Your task to perform on an android device: change notifications settings Image 0: 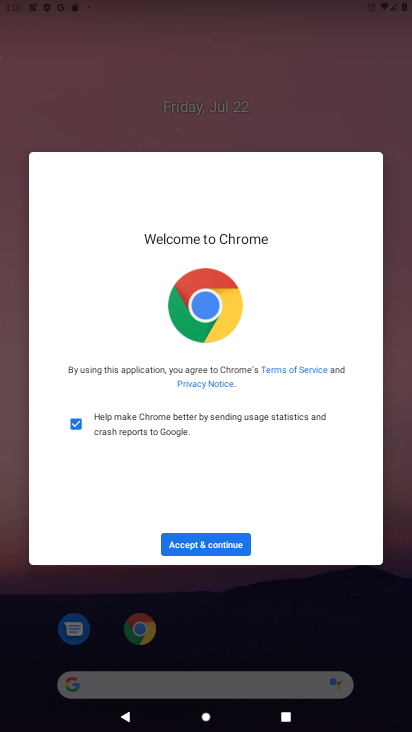
Step 0: press home button
Your task to perform on an android device: change notifications settings Image 1: 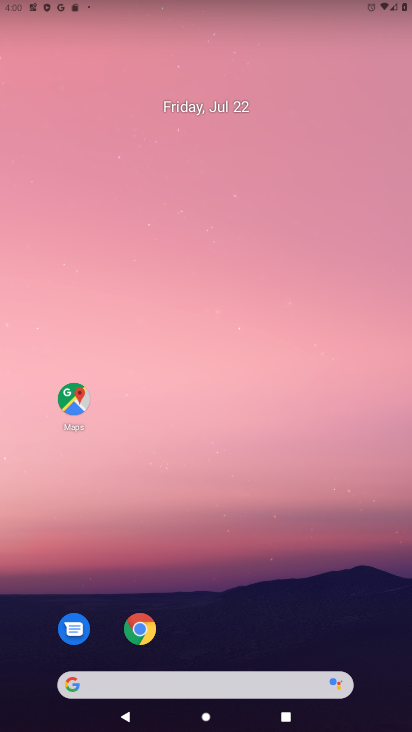
Step 1: drag from (205, 558) to (247, 175)
Your task to perform on an android device: change notifications settings Image 2: 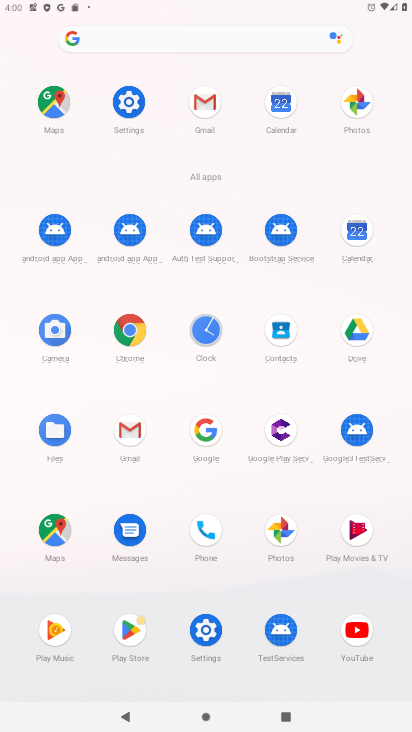
Step 2: click (139, 119)
Your task to perform on an android device: change notifications settings Image 3: 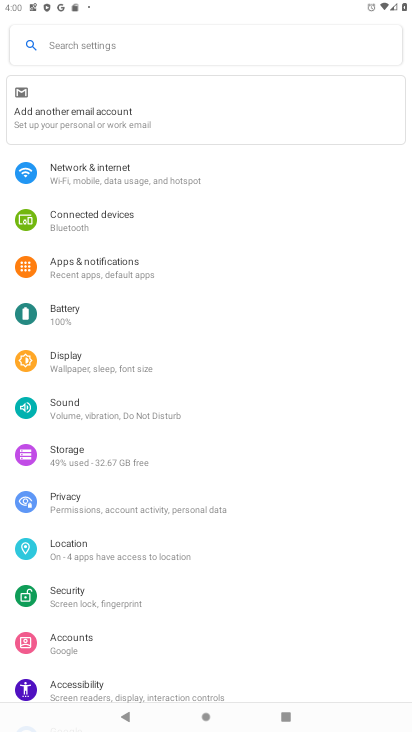
Step 3: click (93, 274)
Your task to perform on an android device: change notifications settings Image 4: 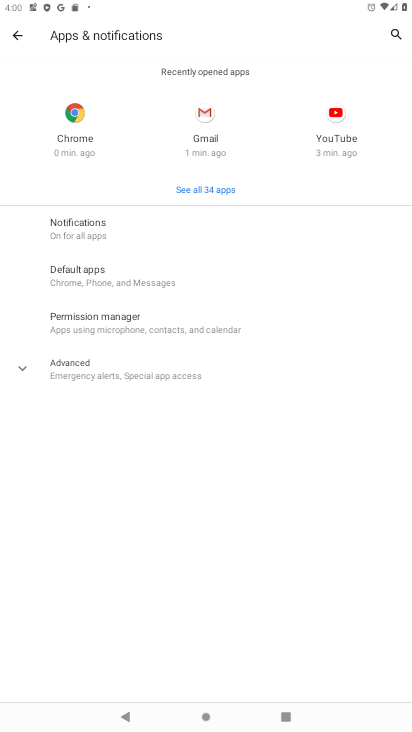
Step 4: click (83, 238)
Your task to perform on an android device: change notifications settings Image 5: 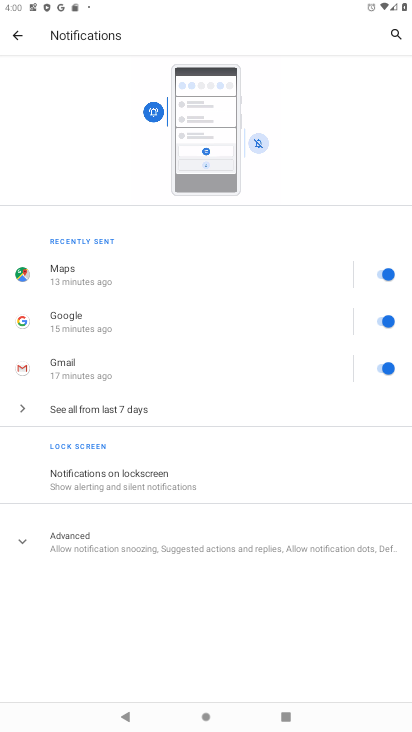
Step 5: click (380, 278)
Your task to perform on an android device: change notifications settings Image 6: 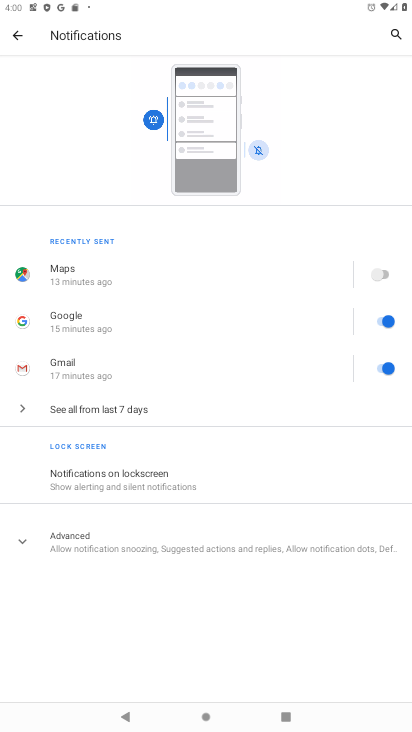
Step 6: task complete